Your task to perform on an android device: install app "Nova Launcher" Image 0: 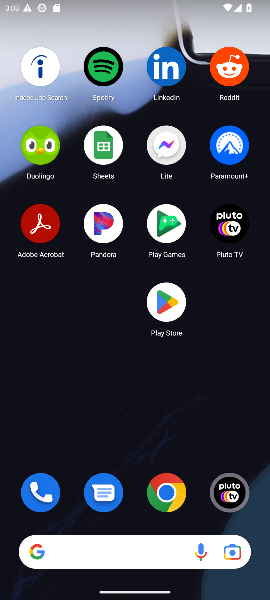
Step 0: click (169, 309)
Your task to perform on an android device: install app "Nova Launcher" Image 1: 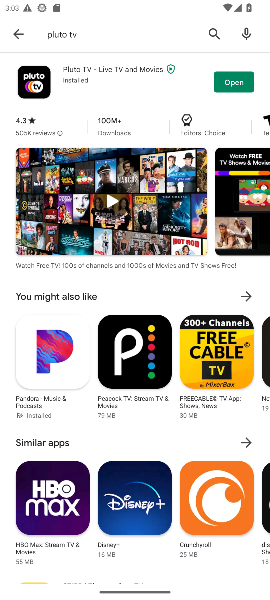
Step 1: click (209, 26)
Your task to perform on an android device: install app "Nova Launcher" Image 2: 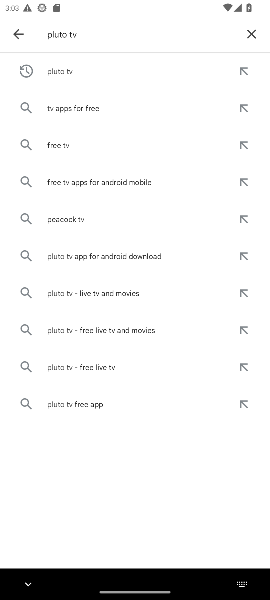
Step 2: click (253, 43)
Your task to perform on an android device: install app "Nova Launcher" Image 3: 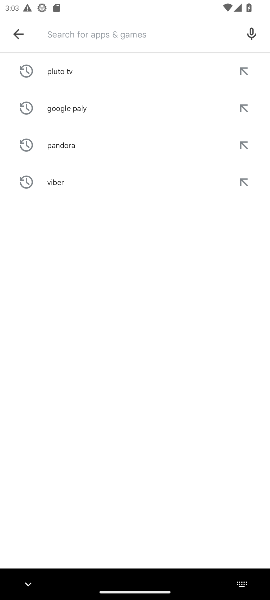
Step 3: type "nova launcher"
Your task to perform on an android device: install app "Nova Launcher" Image 4: 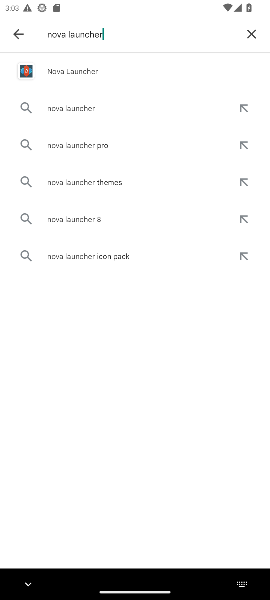
Step 4: click (112, 76)
Your task to perform on an android device: install app "Nova Launcher" Image 5: 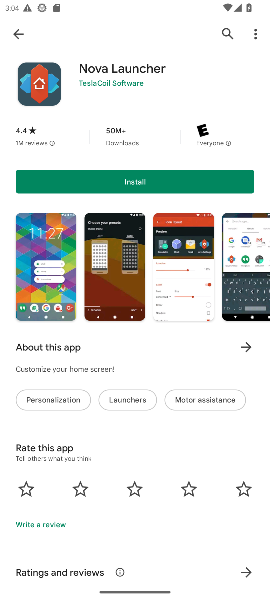
Step 5: click (147, 176)
Your task to perform on an android device: install app "Nova Launcher" Image 6: 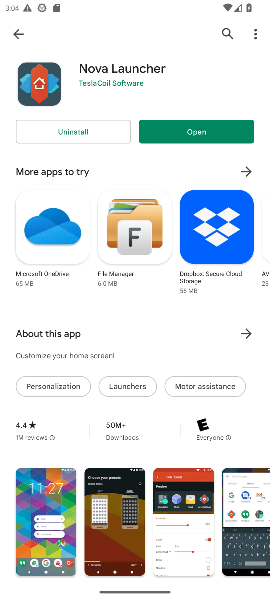
Step 6: click (237, 127)
Your task to perform on an android device: install app "Nova Launcher" Image 7: 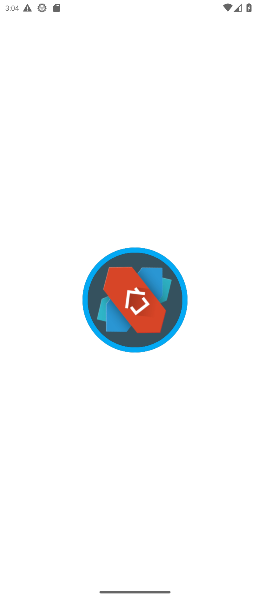
Step 7: task complete